Your task to perform on an android device: What's the news in the Bahamas? Image 0: 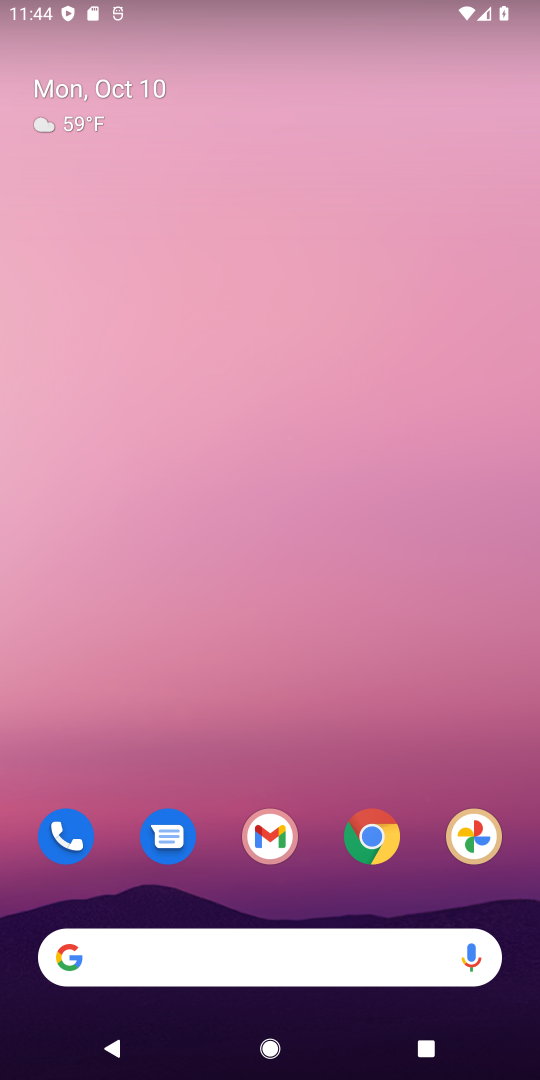
Step 0: click (376, 835)
Your task to perform on an android device: What's the news in the Bahamas? Image 1: 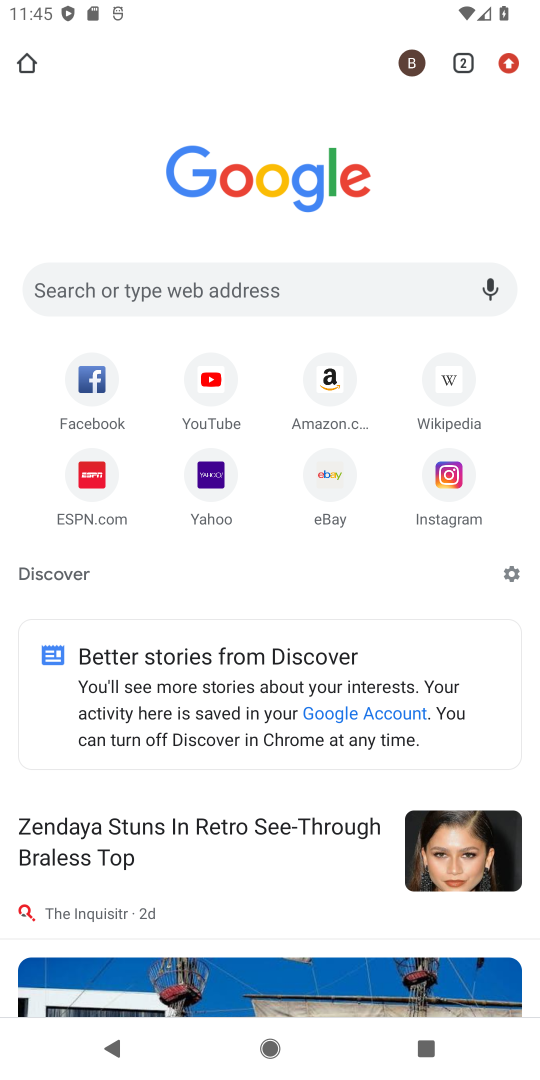
Step 1: click (197, 284)
Your task to perform on an android device: What's the news in the Bahamas? Image 2: 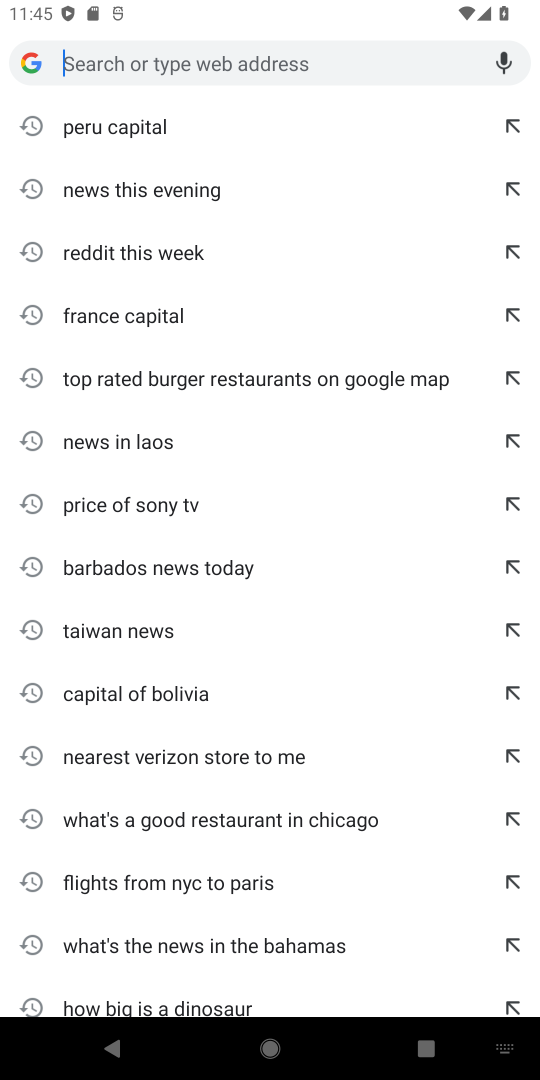
Step 2: type "bahamas"
Your task to perform on an android device: What's the news in the Bahamas? Image 3: 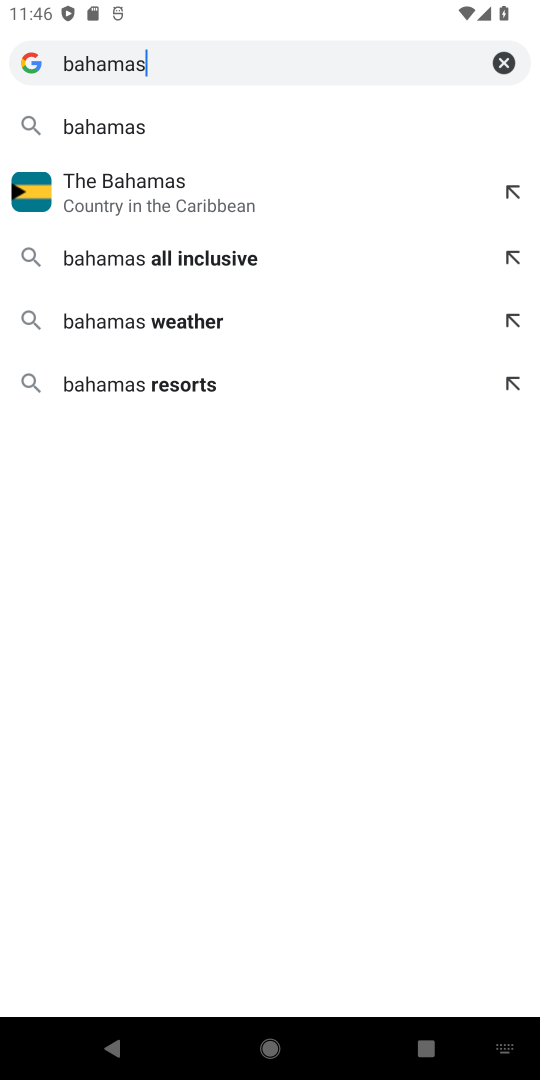
Step 3: click (216, 131)
Your task to perform on an android device: What's the news in the Bahamas? Image 4: 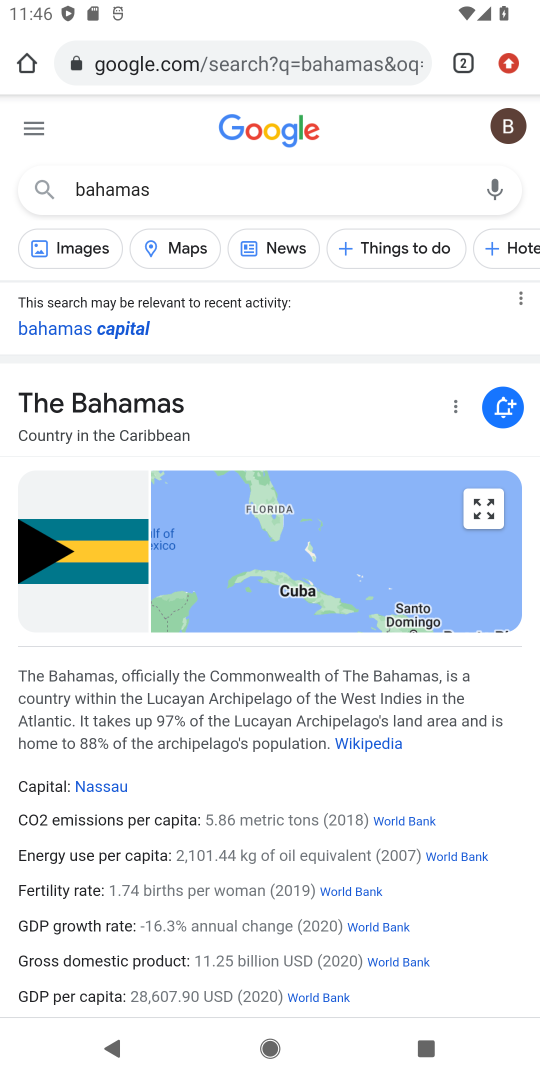
Step 4: click (267, 249)
Your task to perform on an android device: What's the news in the Bahamas? Image 5: 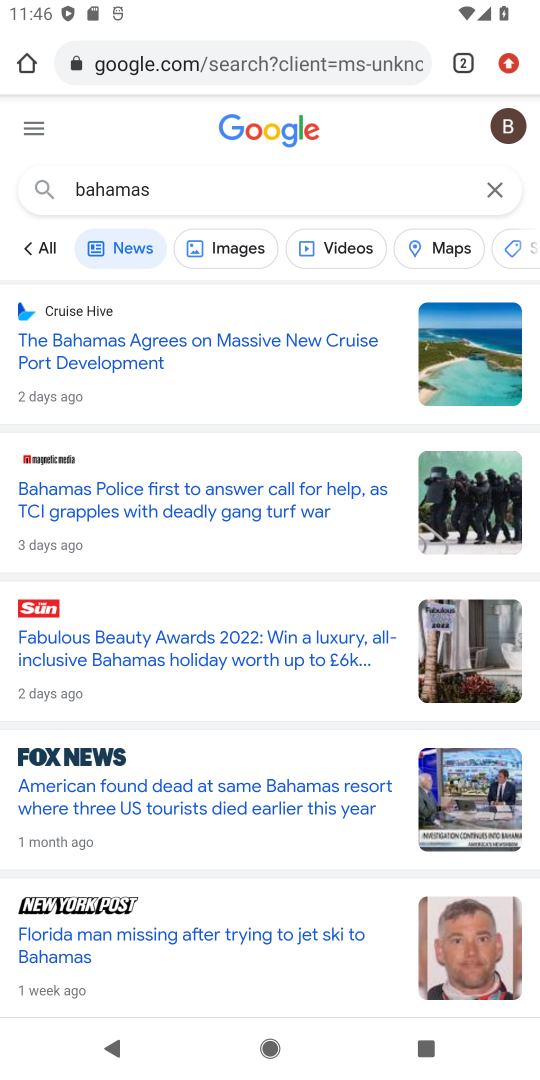
Step 5: task complete